Your task to perform on an android device: Go to Google maps Image 0: 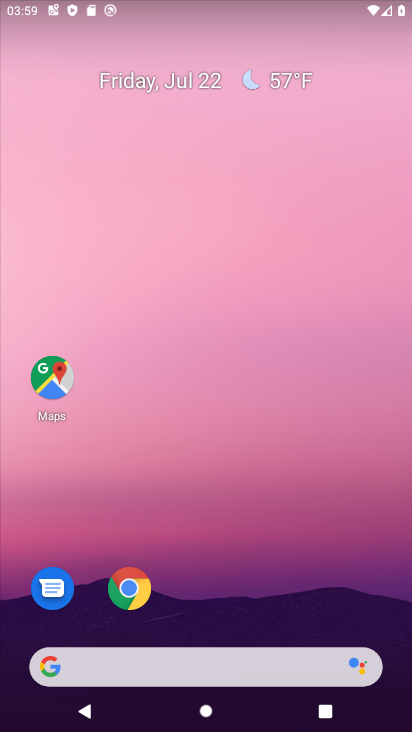
Step 0: drag from (198, 622) to (152, 38)
Your task to perform on an android device: Go to Google maps Image 1: 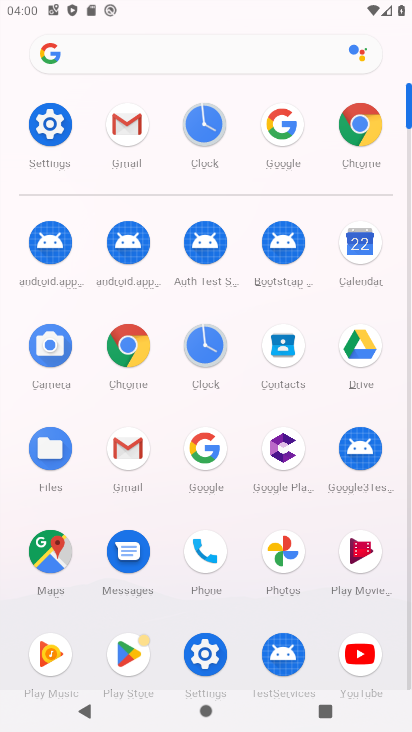
Step 1: click (43, 553)
Your task to perform on an android device: Go to Google maps Image 2: 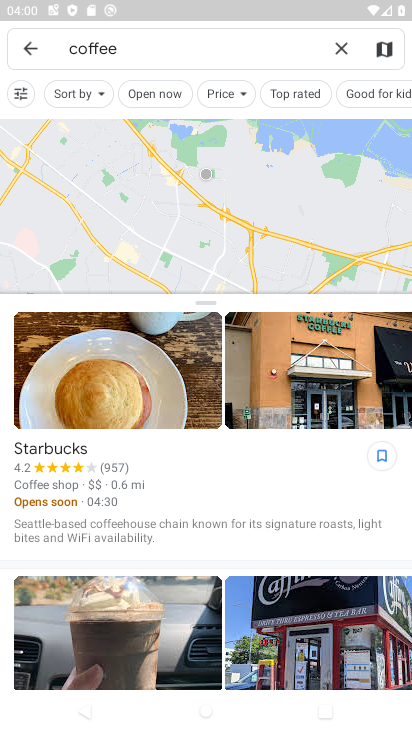
Step 2: click (189, 216)
Your task to perform on an android device: Go to Google maps Image 3: 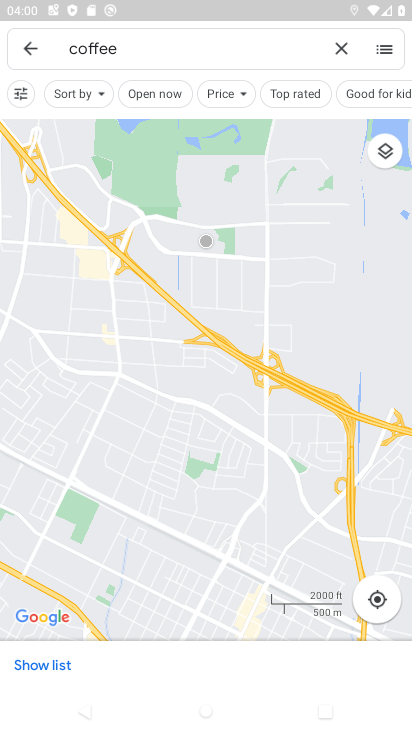
Step 3: task complete